Your task to perform on an android device: Turn off the flashlight Image 0: 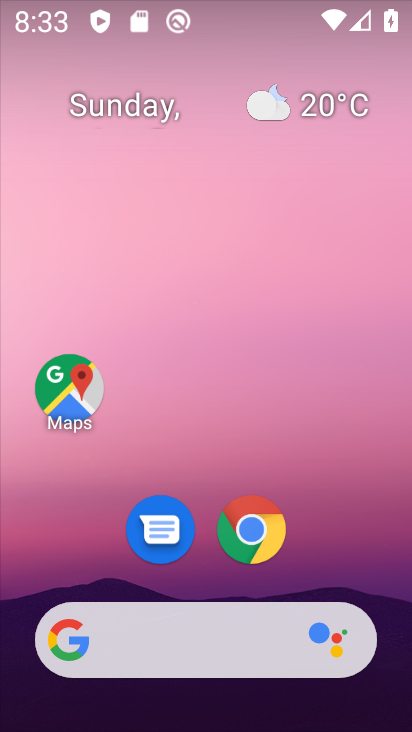
Step 0: drag from (350, 125) to (261, 589)
Your task to perform on an android device: Turn off the flashlight Image 1: 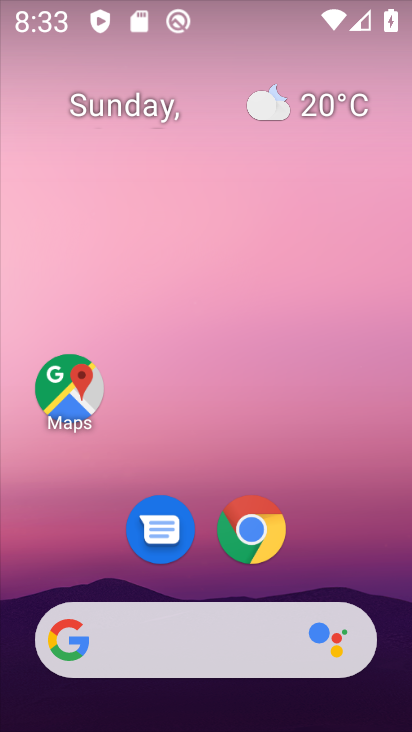
Step 1: task complete